Your task to perform on an android device: Open the calendar app, open the side menu, and click the "Day" option Image 0: 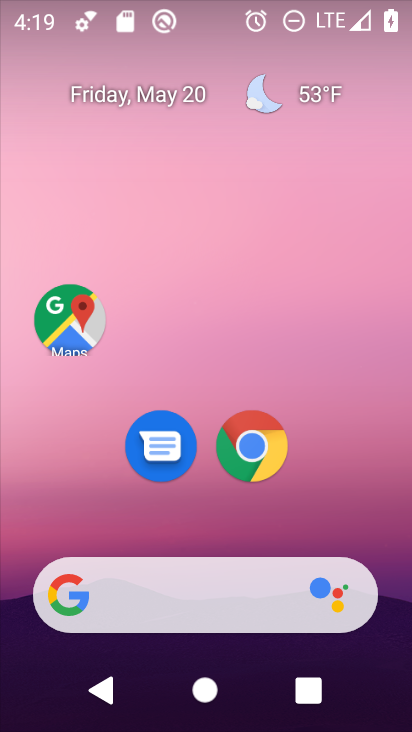
Step 0: drag from (367, 503) to (356, 153)
Your task to perform on an android device: Open the calendar app, open the side menu, and click the "Day" option Image 1: 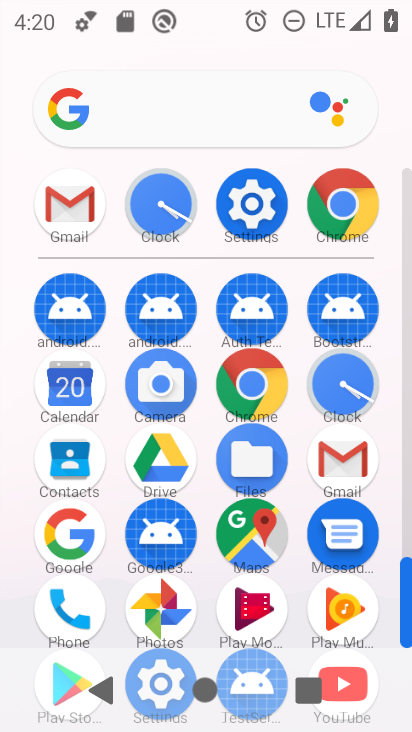
Step 1: click (89, 391)
Your task to perform on an android device: Open the calendar app, open the side menu, and click the "Day" option Image 2: 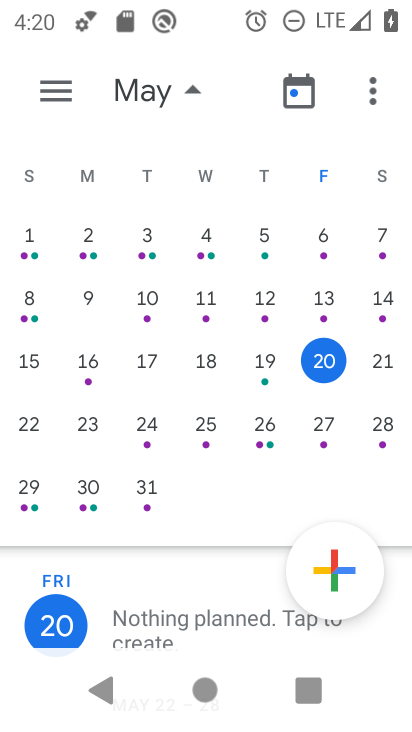
Step 2: click (57, 97)
Your task to perform on an android device: Open the calendar app, open the side menu, and click the "Day" option Image 3: 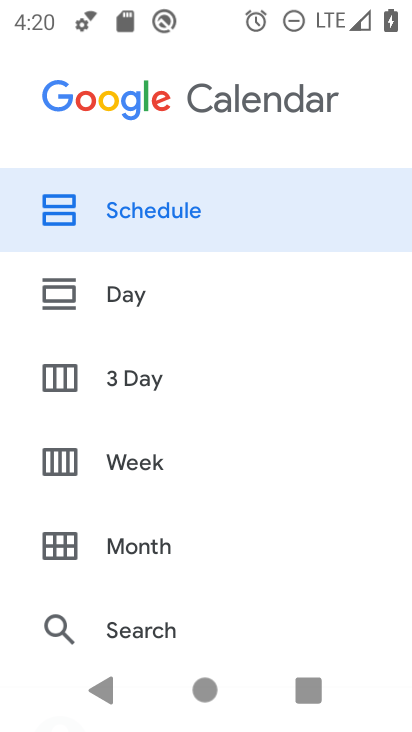
Step 3: click (82, 316)
Your task to perform on an android device: Open the calendar app, open the side menu, and click the "Day" option Image 4: 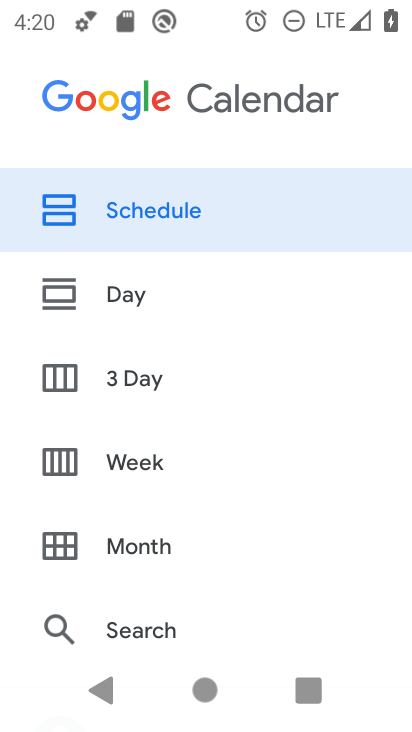
Step 4: click (106, 295)
Your task to perform on an android device: Open the calendar app, open the side menu, and click the "Day" option Image 5: 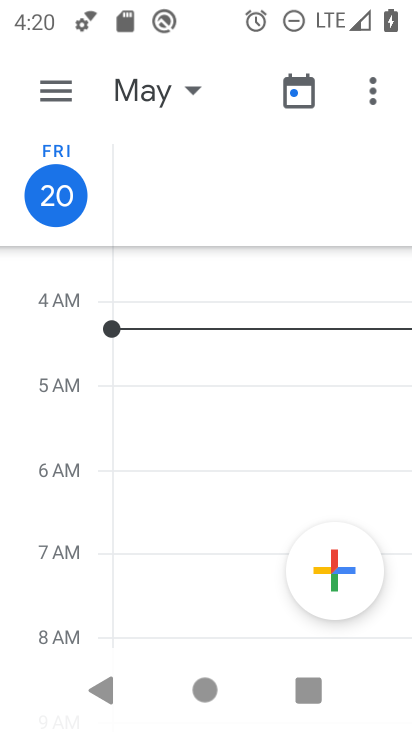
Step 5: task complete